Your task to perform on an android device: change the upload size in google photos Image 0: 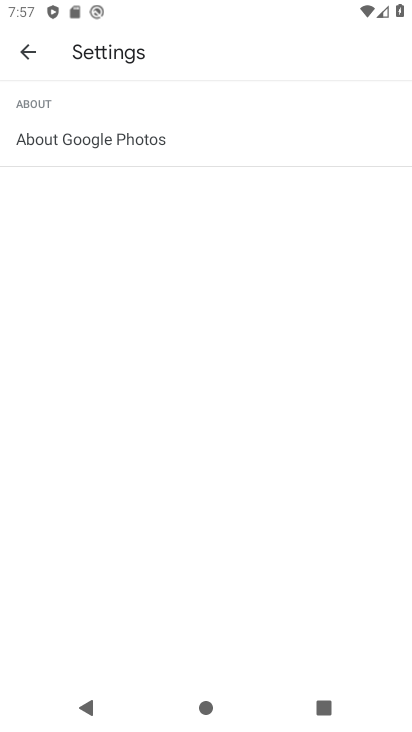
Step 0: press home button
Your task to perform on an android device: change the upload size in google photos Image 1: 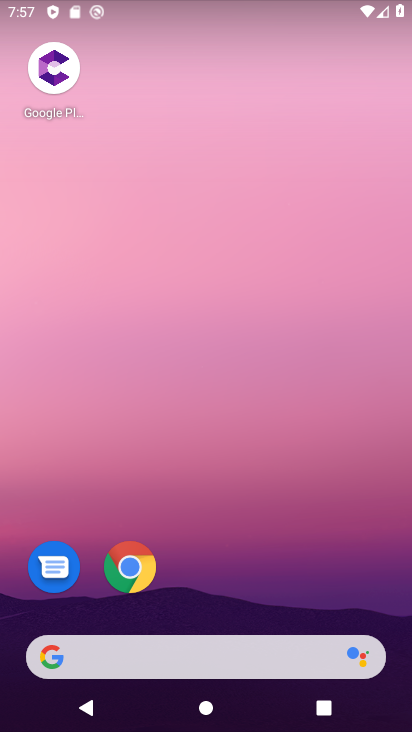
Step 1: drag from (367, 608) to (206, 159)
Your task to perform on an android device: change the upload size in google photos Image 2: 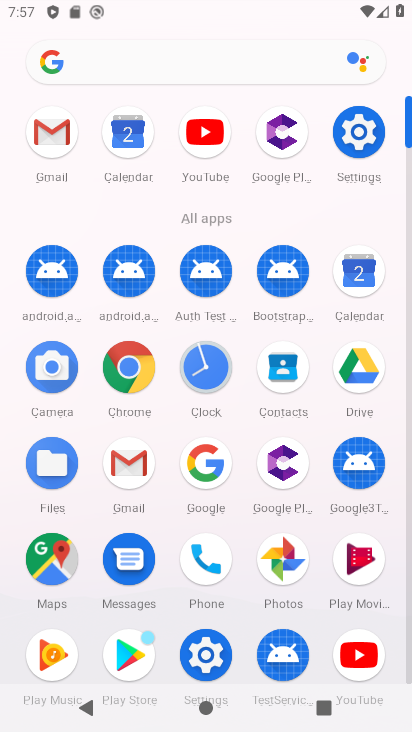
Step 2: click (283, 559)
Your task to perform on an android device: change the upload size in google photos Image 3: 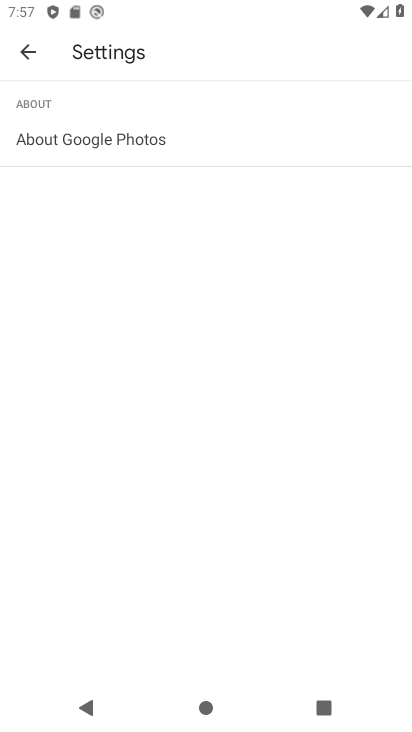
Step 3: press home button
Your task to perform on an android device: change the upload size in google photos Image 4: 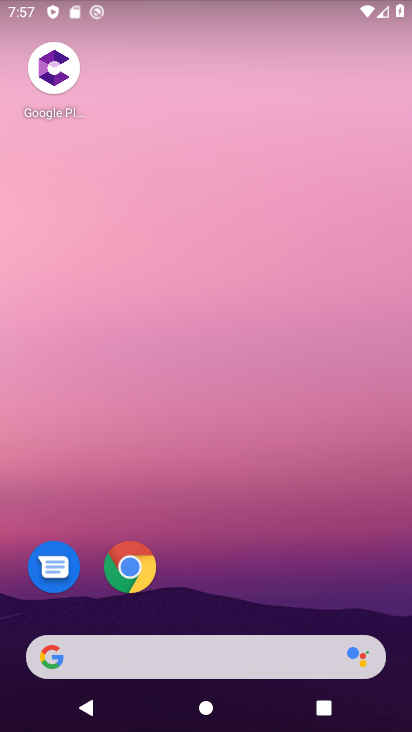
Step 4: drag from (389, 622) to (278, 60)
Your task to perform on an android device: change the upload size in google photos Image 5: 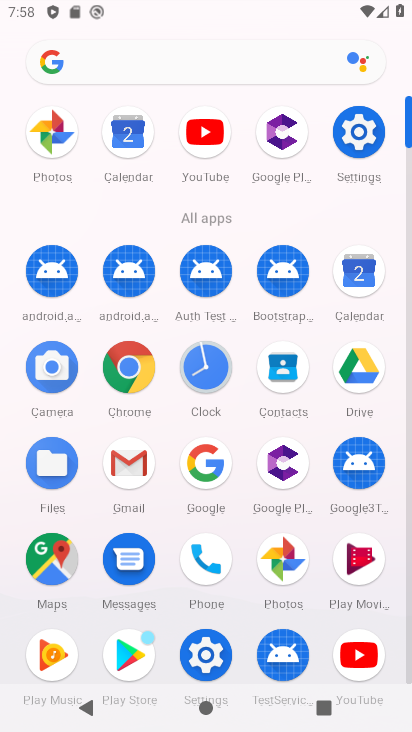
Step 5: click (281, 560)
Your task to perform on an android device: change the upload size in google photos Image 6: 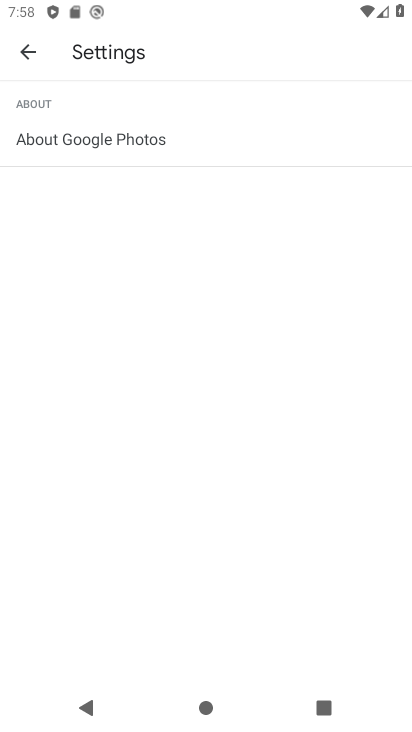
Step 6: press back button
Your task to perform on an android device: change the upload size in google photos Image 7: 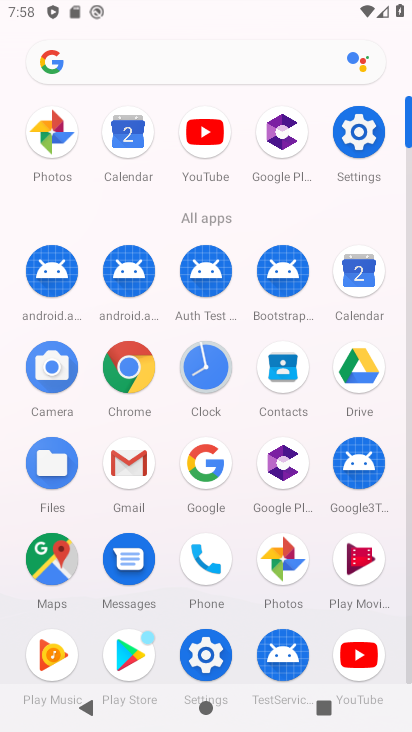
Step 7: click (281, 559)
Your task to perform on an android device: change the upload size in google photos Image 8: 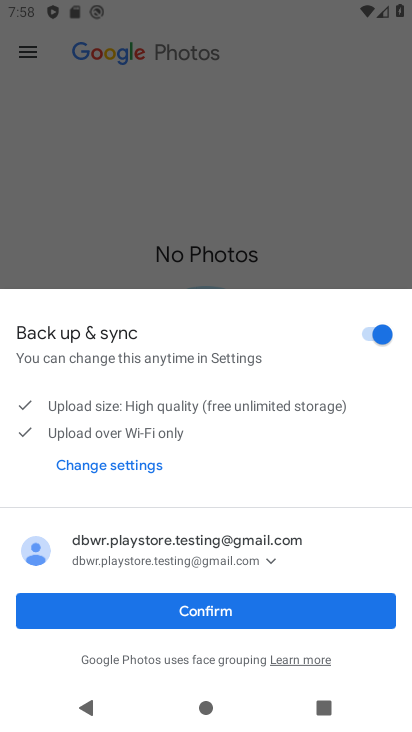
Step 8: click (197, 617)
Your task to perform on an android device: change the upload size in google photos Image 9: 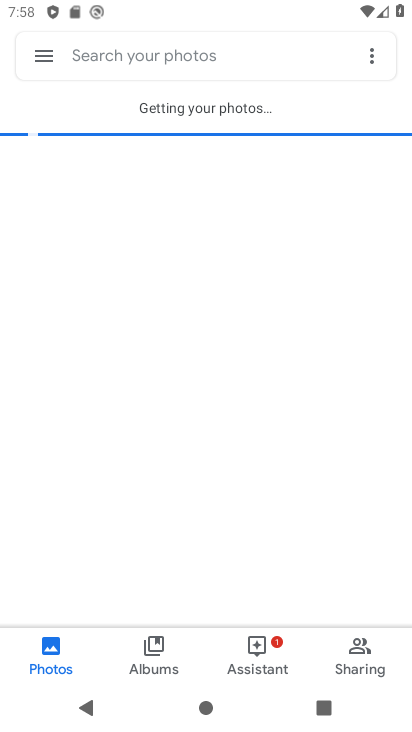
Step 9: click (40, 58)
Your task to perform on an android device: change the upload size in google photos Image 10: 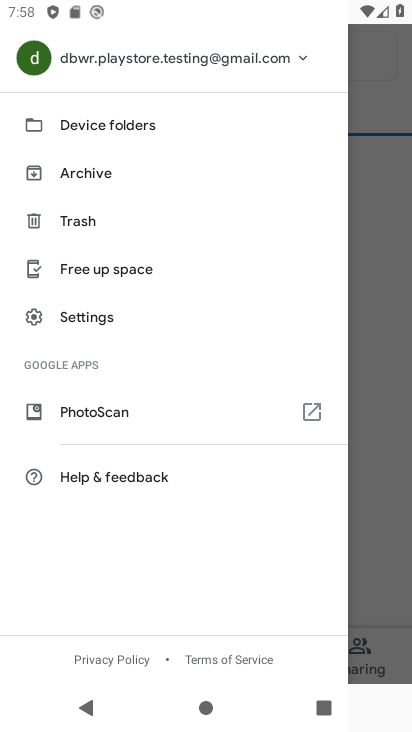
Step 10: click (84, 322)
Your task to perform on an android device: change the upload size in google photos Image 11: 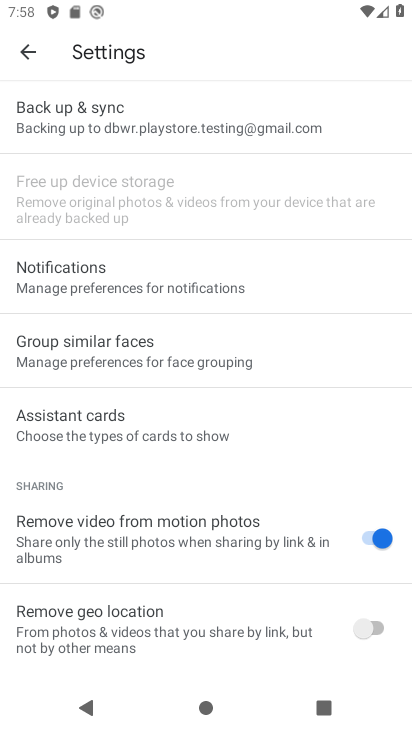
Step 11: click (83, 111)
Your task to perform on an android device: change the upload size in google photos Image 12: 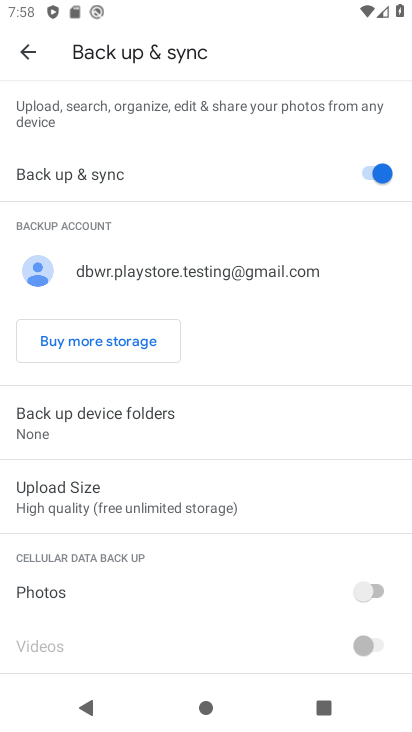
Step 12: click (76, 483)
Your task to perform on an android device: change the upload size in google photos Image 13: 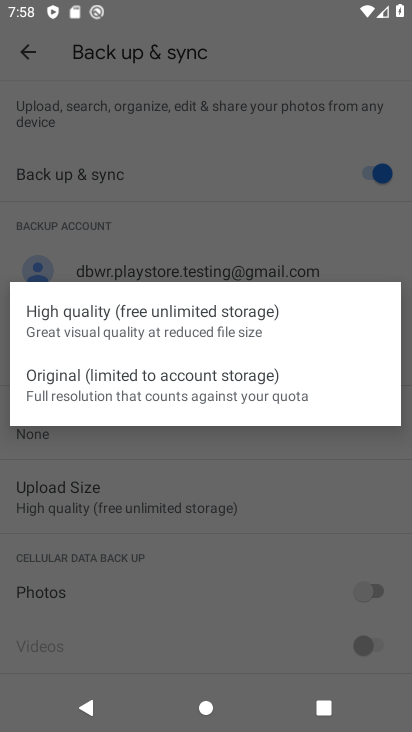
Step 13: click (119, 390)
Your task to perform on an android device: change the upload size in google photos Image 14: 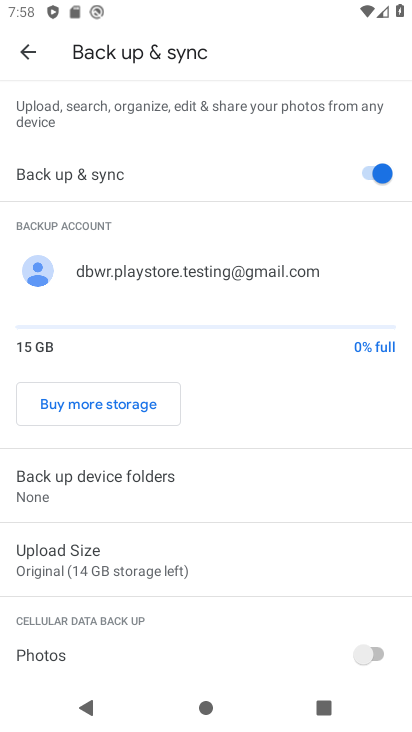
Step 14: task complete